Your task to perform on an android device: Search for seafood restaurants on Google Maps Image 0: 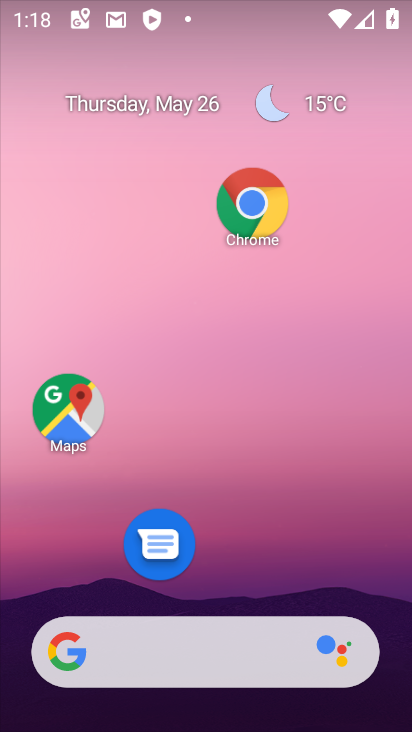
Step 0: click (68, 405)
Your task to perform on an android device: Search for seafood restaurants on Google Maps Image 1: 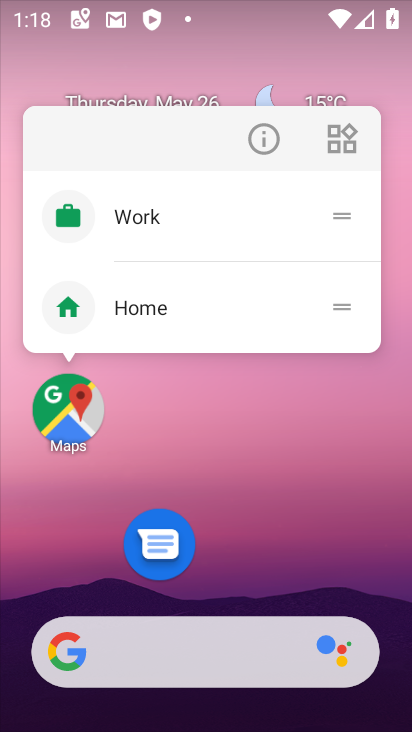
Step 1: click (78, 404)
Your task to perform on an android device: Search for seafood restaurants on Google Maps Image 2: 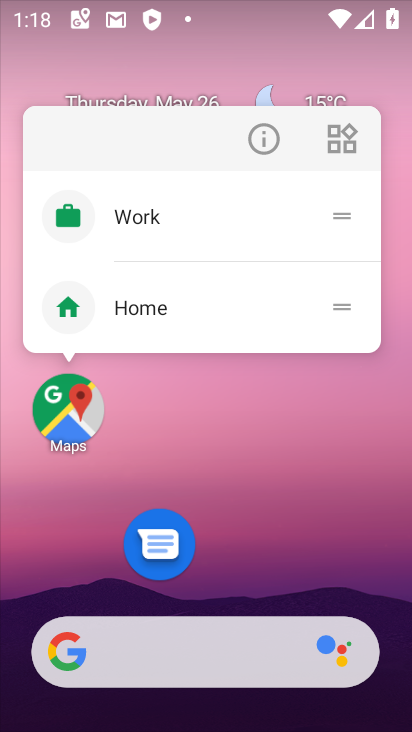
Step 2: click (78, 404)
Your task to perform on an android device: Search for seafood restaurants on Google Maps Image 3: 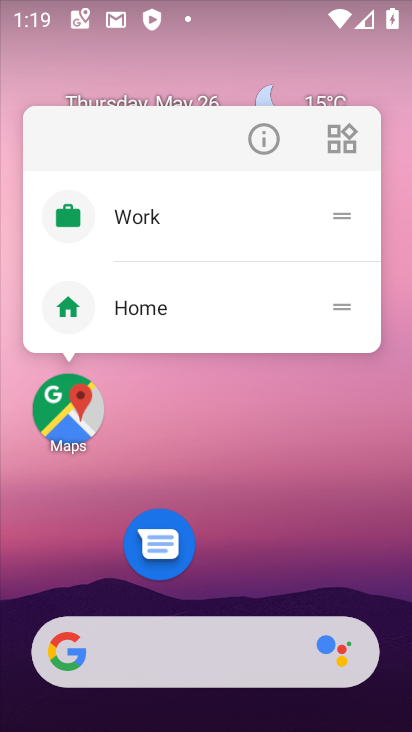
Step 3: click (65, 425)
Your task to perform on an android device: Search for seafood restaurants on Google Maps Image 4: 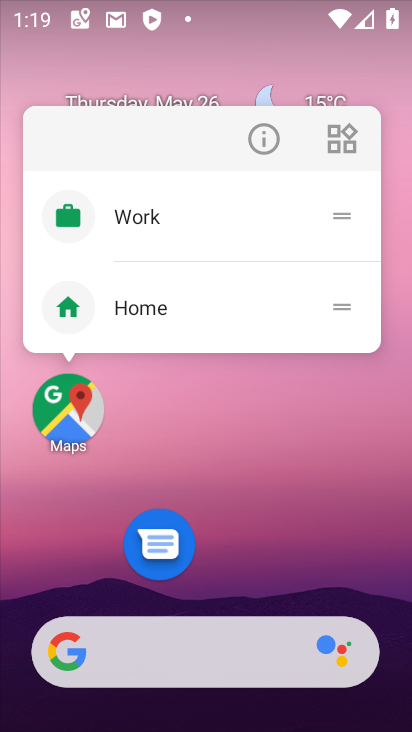
Step 4: click (65, 425)
Your task to perform on an android device: Search for seafood restaurants on Google Maps Image 5: 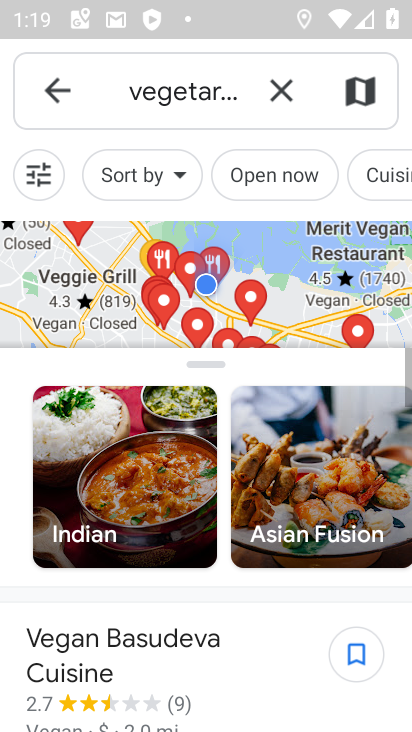
Step 5: click (284, 81)
Your task to perform on an android device: Search for seafood restaurants on Google Maps Image 6: 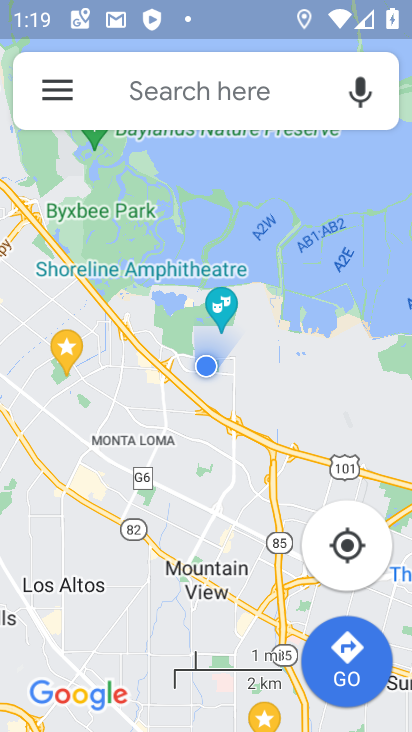
Step 6: click (154, 82)
Your task to perform on an android device: Search for seafood restaurants on Google Maps Image 7: 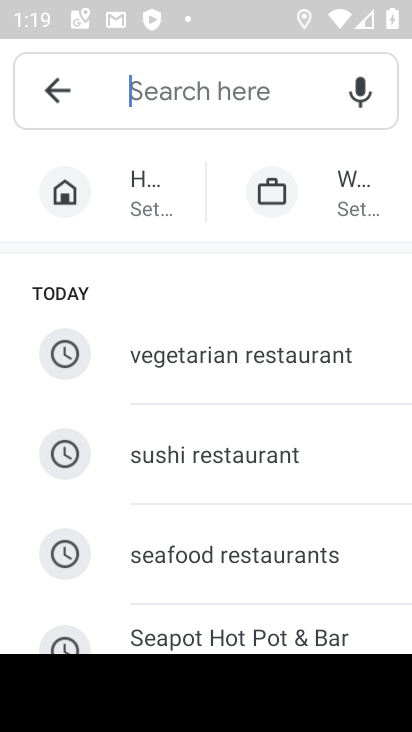
Step 7: click (236, 553)
Your task to perform on an android device: Search for seafood restaurants on Google Maps Image 8: 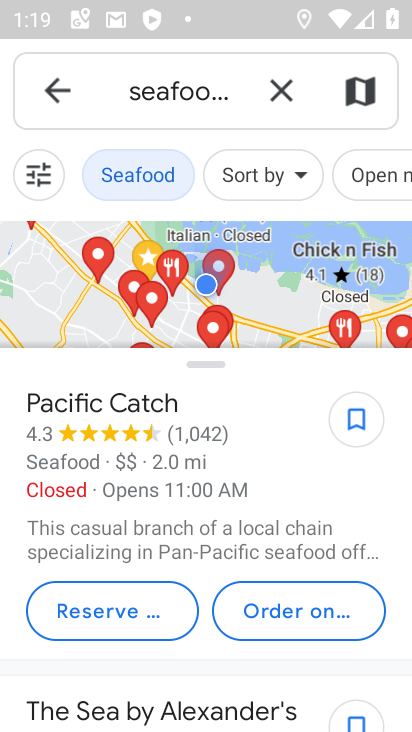
Step 8: task complete